Your task to perform on an android device: find photos in the google photos app Image 0: 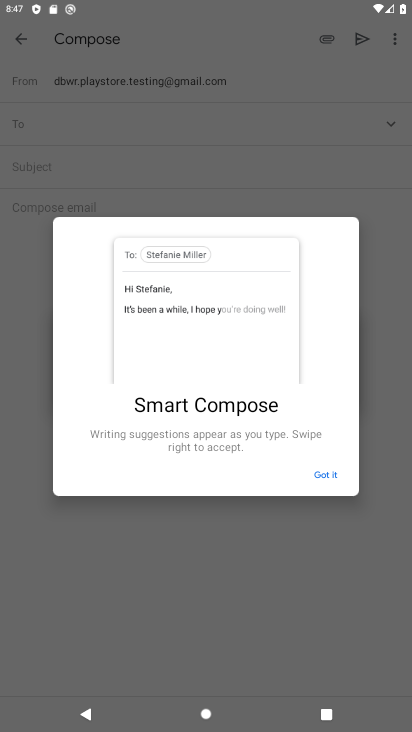
Step 0: press home button
Your task to perform on an android device: find photos in the google photos app Image 1: 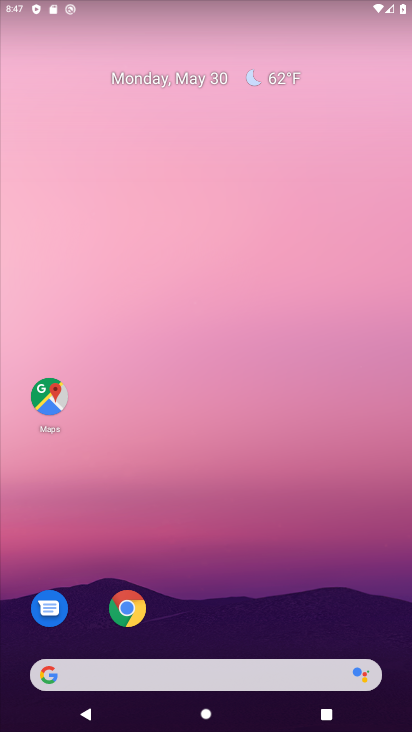
Step 1: drag from (185, 653) to (290, 152)
Your task to perform on an android device: find photos in the google photos app Image 2: 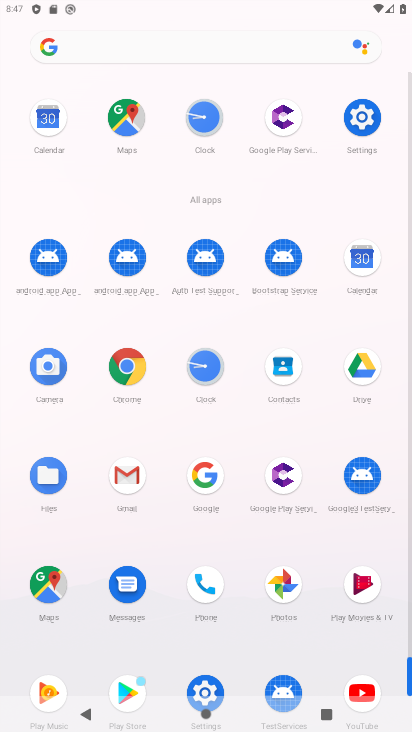
Step 2: click (287, 590)
Your task to perform on an android device: find photos in the google photos app Image 3: 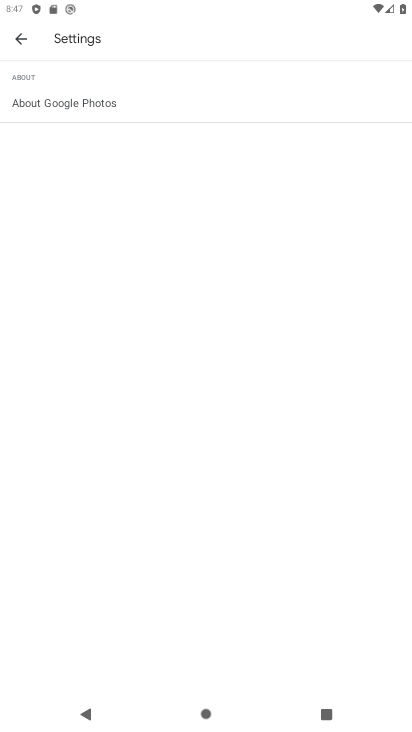
Step 3: press back button
Your task to perform on an android device: find photos in the google photos app Image 4: 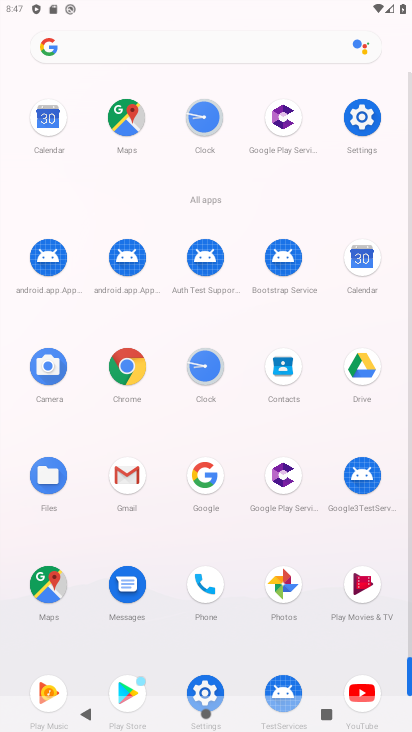
Step 4: click (290, 605)
Your task to perform on an android device: find photos in the google photos app Image 5: 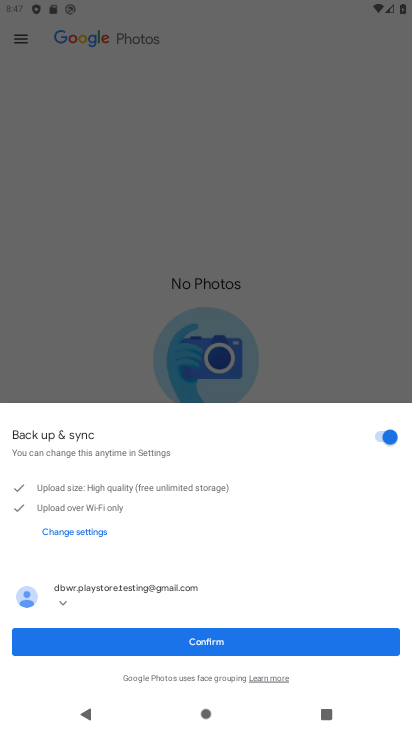
Step 5: click (254, 648)
Your task to perform on an android device: find photos in the google photos app Image 6: 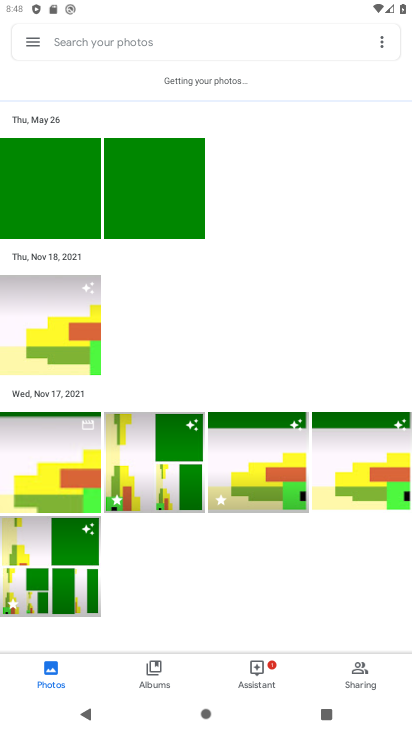
Step 6: task complete